Your task to perform on an android device: turn notification dots on Image 0: 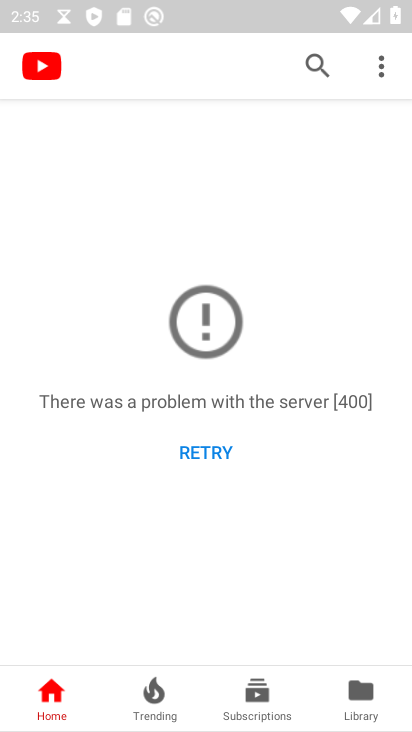
Step 0: press home button
Your task to perform on an android device: turn notification dots on Image 1: 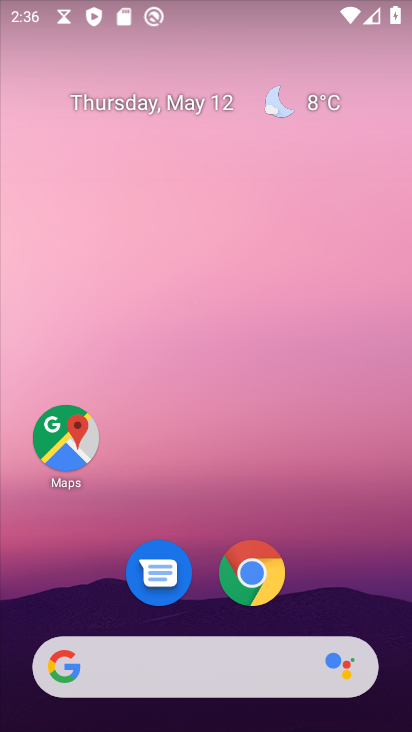
Step 1: drag from (315, 572) to (327, 98)
Your task to perform on an android device: turn notification dots on Image 2: 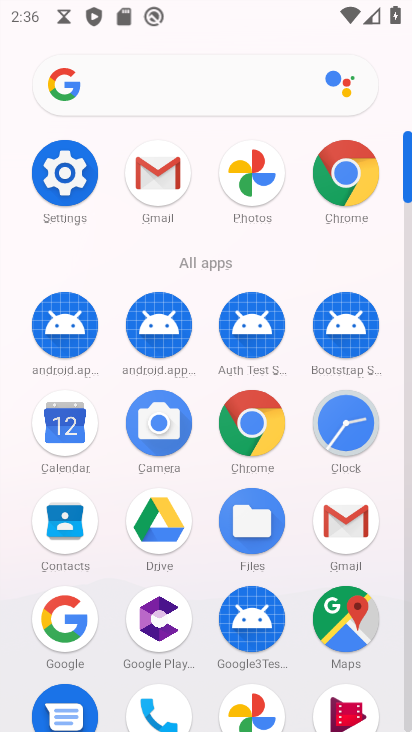
Step 2: click (58, 166)
Your task to perform on an android device: turn notification dots on Image 3: 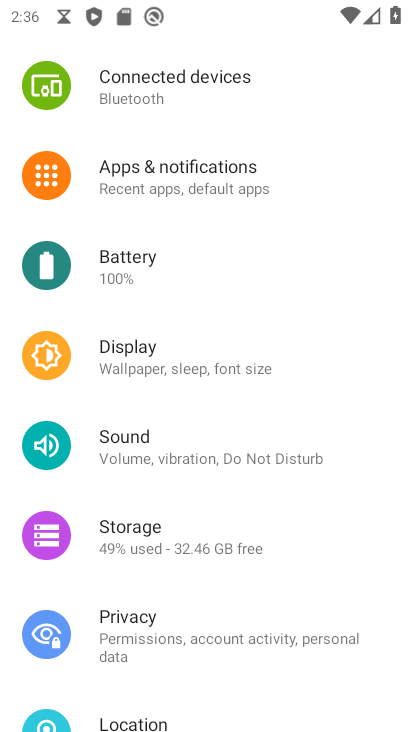
Step 3: click (171, 180)
Your task to perform on an android device: turn notification dots on Image 4: 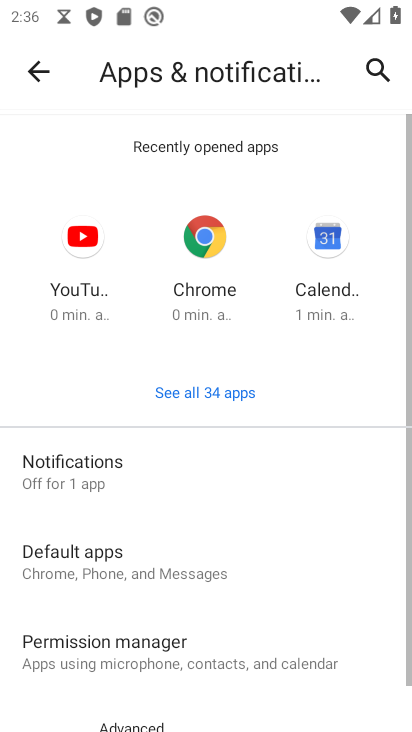
Step 4: drag from (320, 571) to (304, 372)
Your task to perform on an android device: turn notification dots on Image 5: 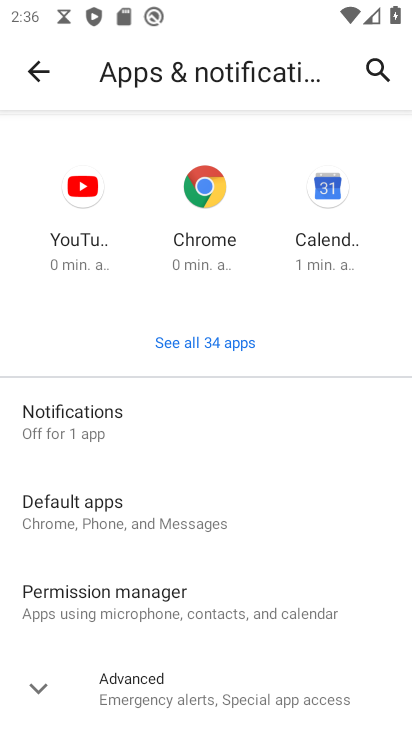
Step 5: click (65, 404)
Your task to perform on an android device: turn notification dots on Image 6: 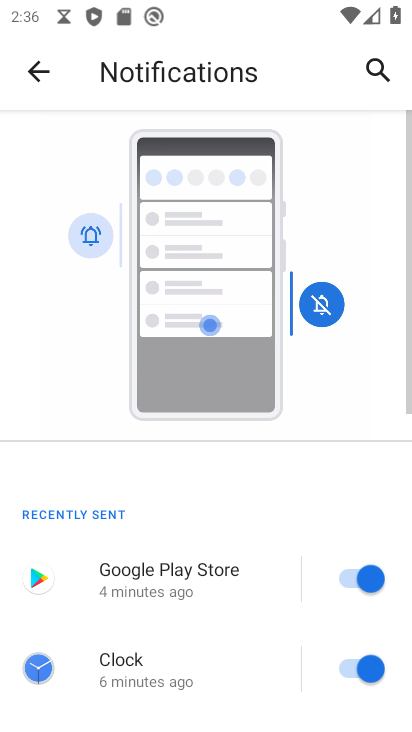
Step 6: drag from (259, 554) to (296, 73)
Your task to perform on an android device: turn notification dots on Image 7: 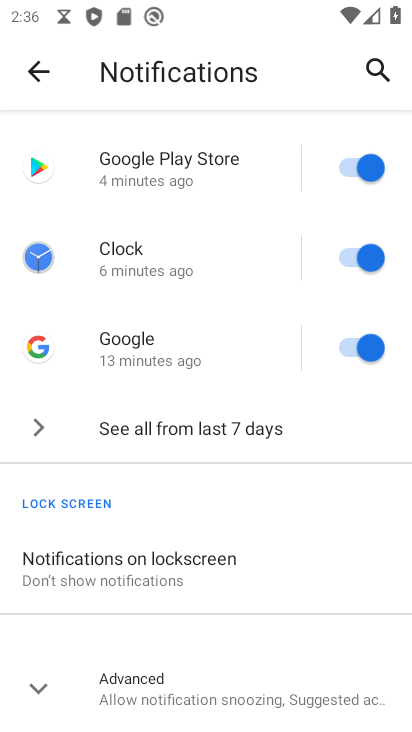
Step 7: drag from (242, 636) to (255, 274)
Your task to perform on an android device: turn notification dots on Image 8: 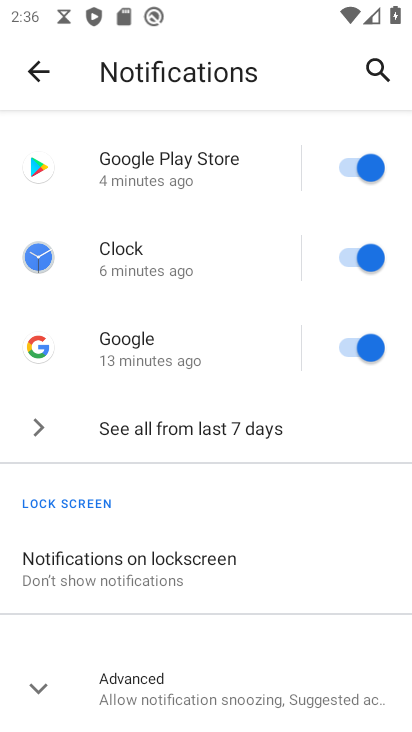
Step 8: click (138, 683)
Your task to perform on an android device: turn notification dots on Image 9: 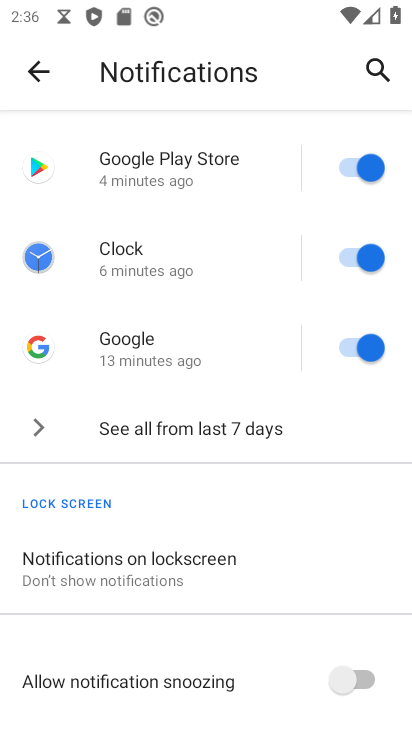
Step 9: task complete